Your task to perform on an android device: Find coffee shops on Maps Image 0: 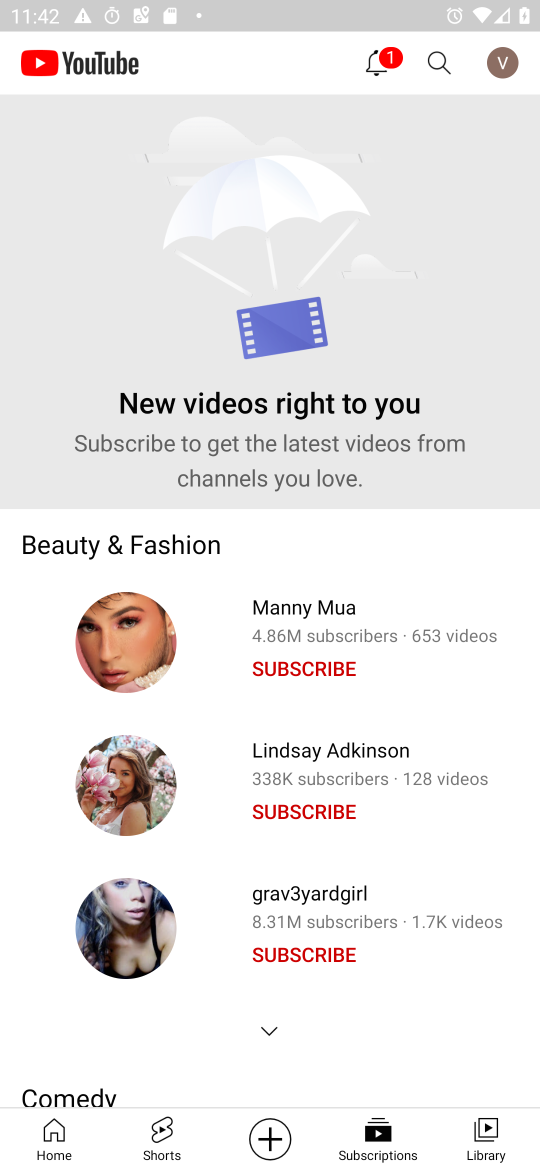
Step 0: press home button
Your task to perform on an android device: Find coffee shops on Maps Image 1: 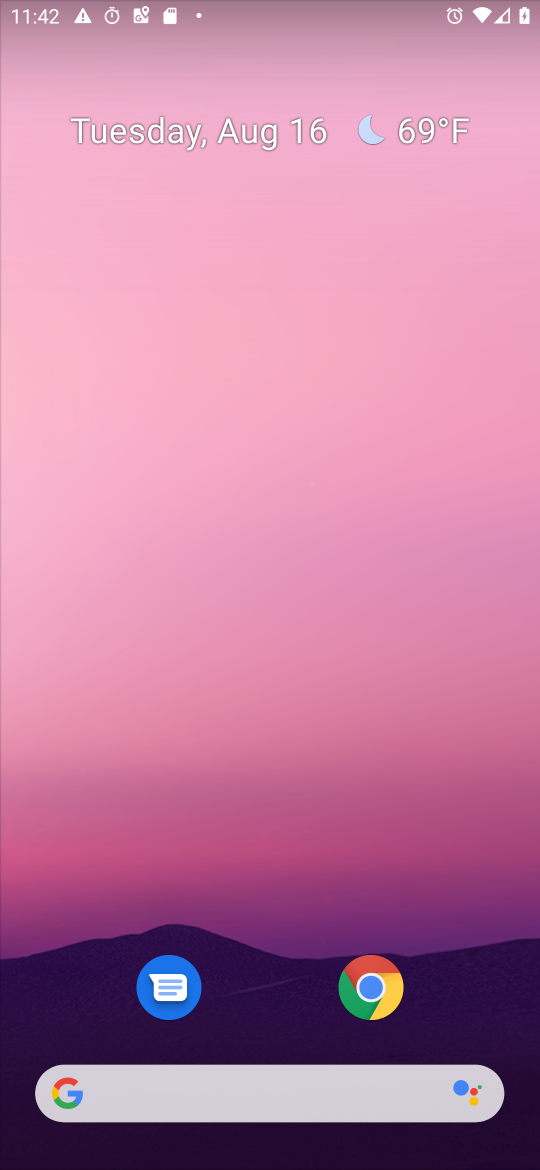
Step 1: drag from (14, 1128) to (242, 464)
Your task to perform on an android device: Find coffee shops on Maps Image 2: 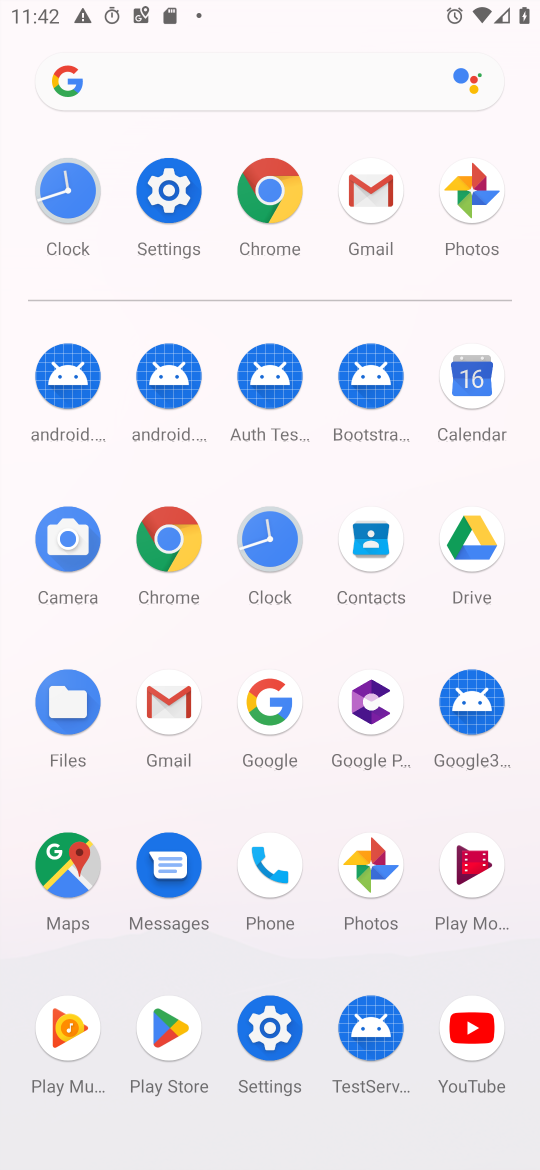
Step 2: click (68, 865)
Your task to perform on an android device: Find coffee shops on Maps Image 3: 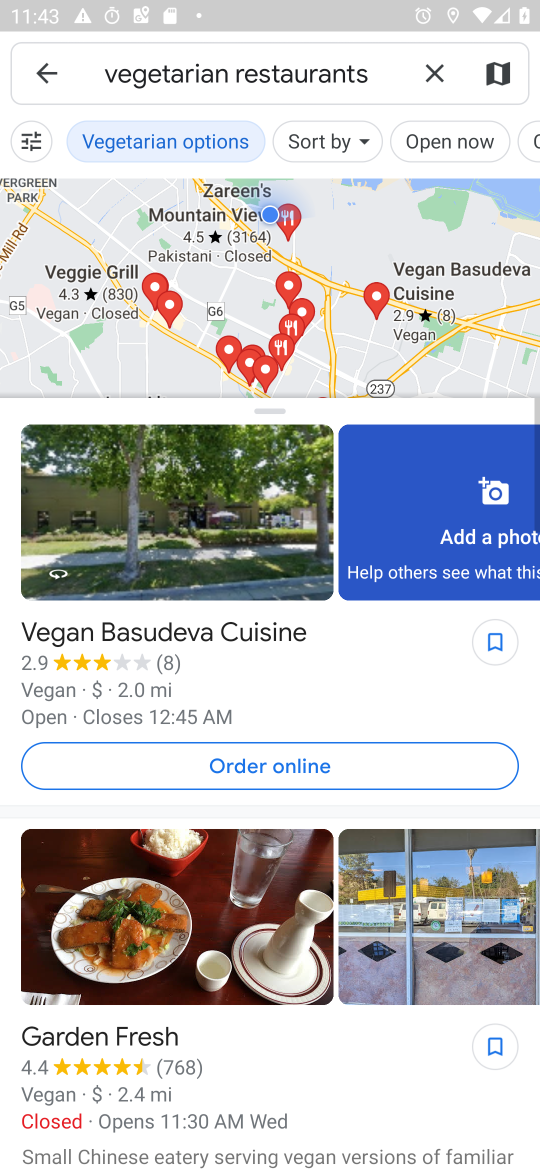
Step 3: click (38, 73)
Your task to perform on an android device: Find coffee shops on Maps Image 4: 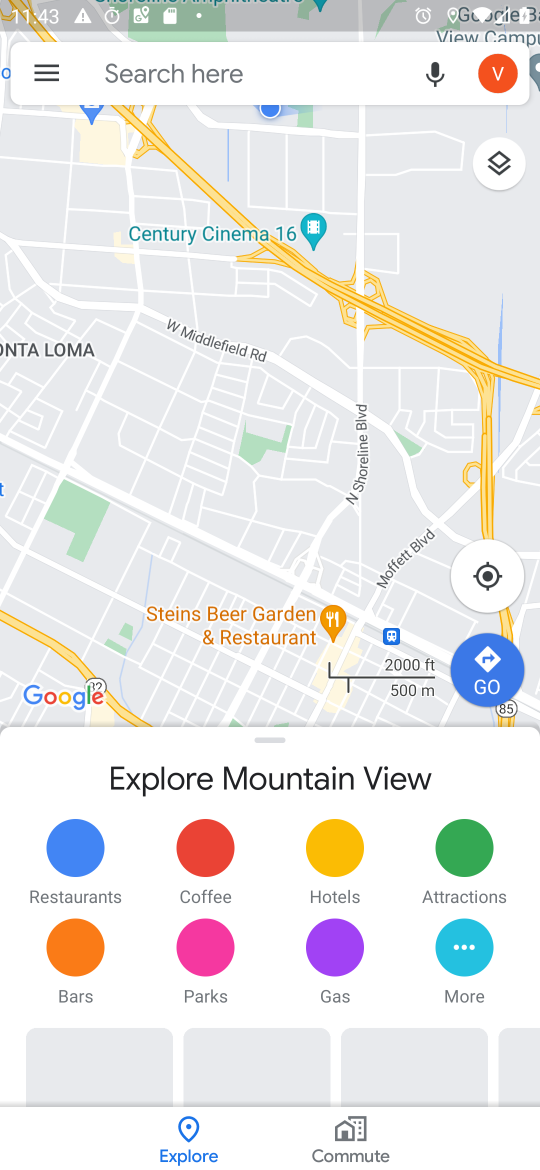
Step 4: click (131, 65)
Your task to perform on an android device: Find coffee shops on Maps Image 5: 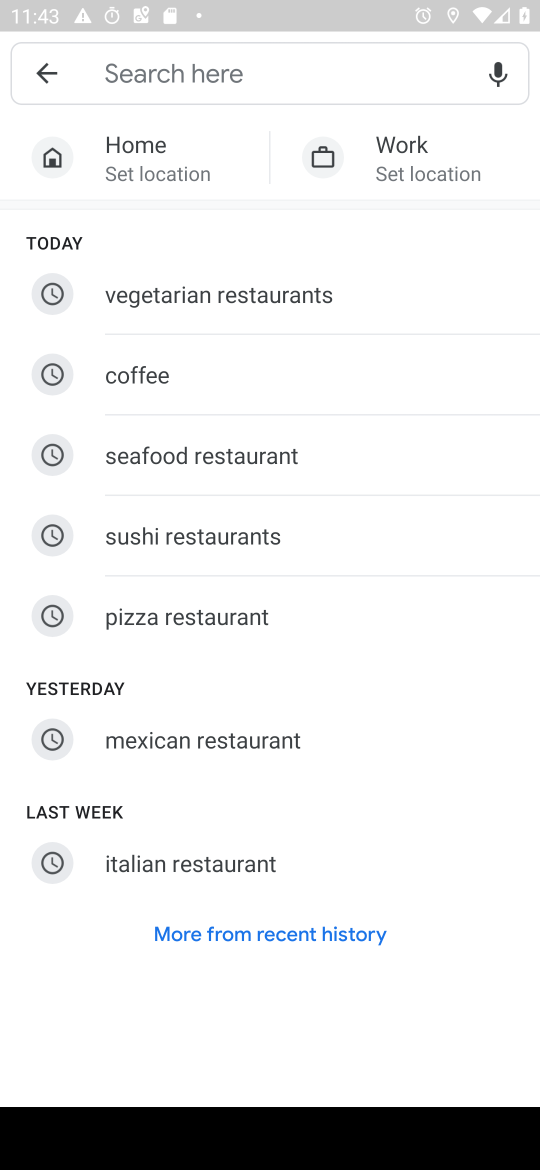
Step 5: type "coffee shops"
Your task to perform on an android device: Find coffee shops on Maps Image 6: 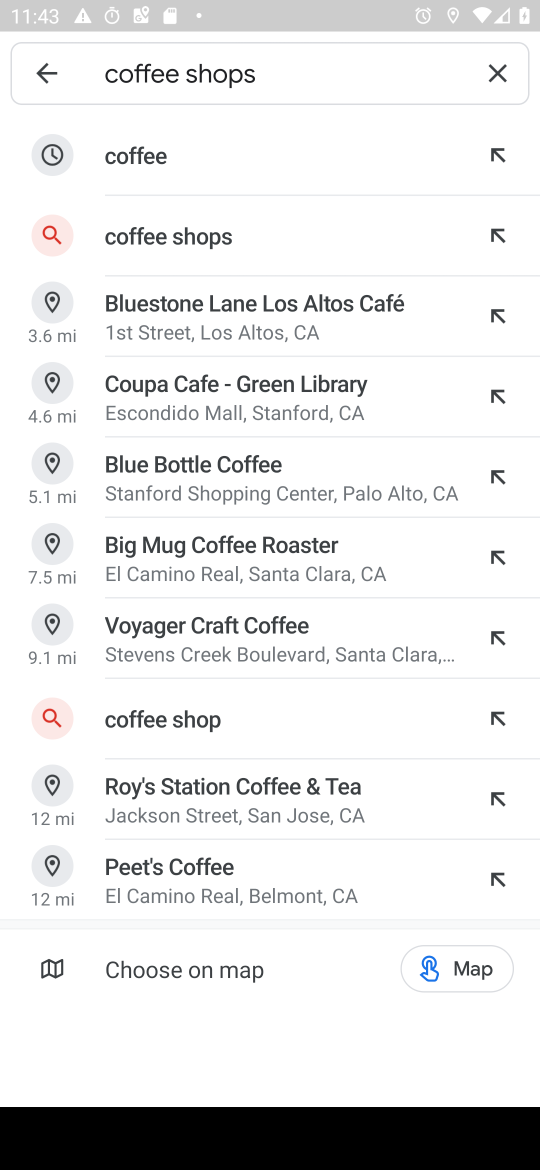
Step 6: click (207, 235)
Your task to perform on an android device: Find coffee shops on Maps Image 7: 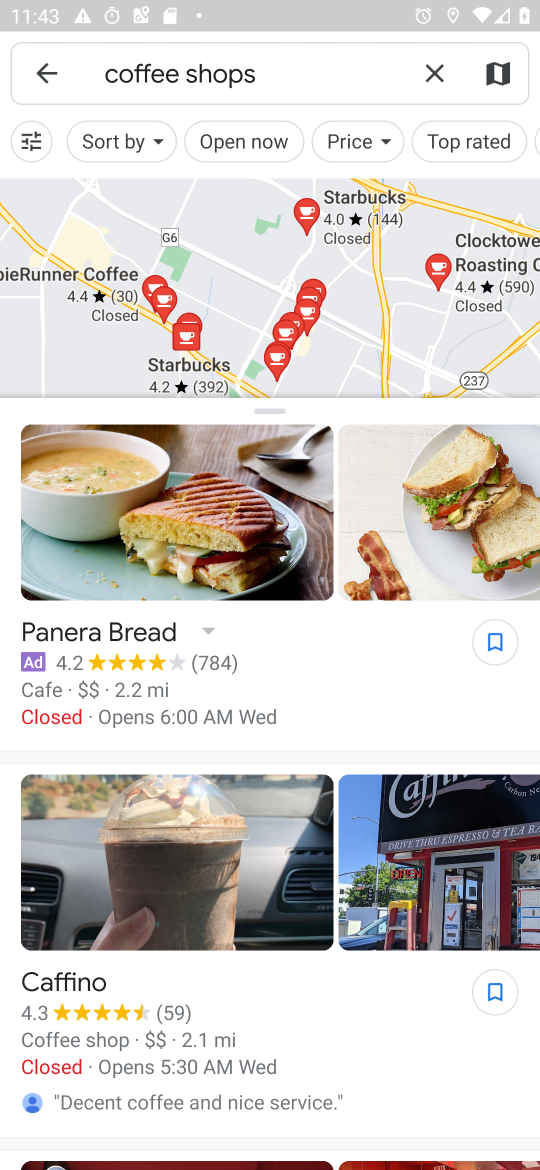
Step 7: task complete